Your task to perform on an android device: change notification settings in the gmail app Image 0: 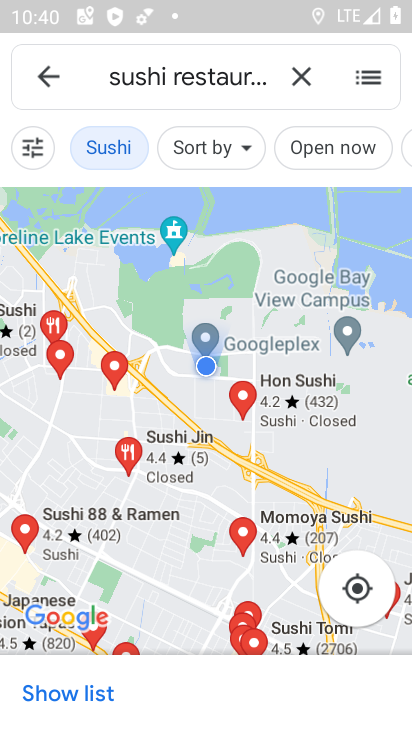
Step 0: press home button
Your task to perform on an android device: change notification settings in the gmail app Image 1: 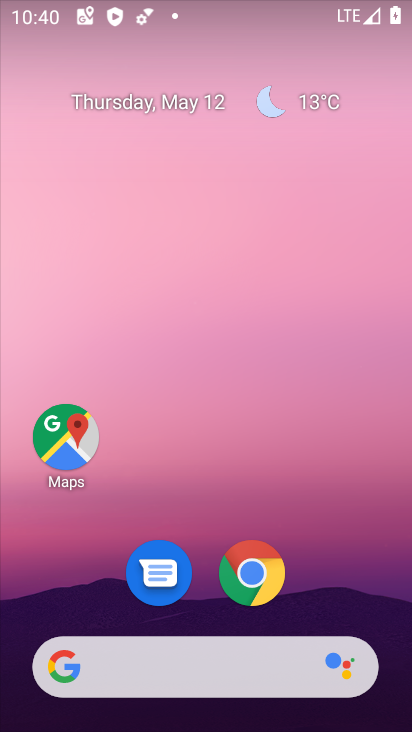
Step 1: drag from (174, 641) to (126, 26)
Your task to perform on an android device: change notification settings in the gmail app Image 2: 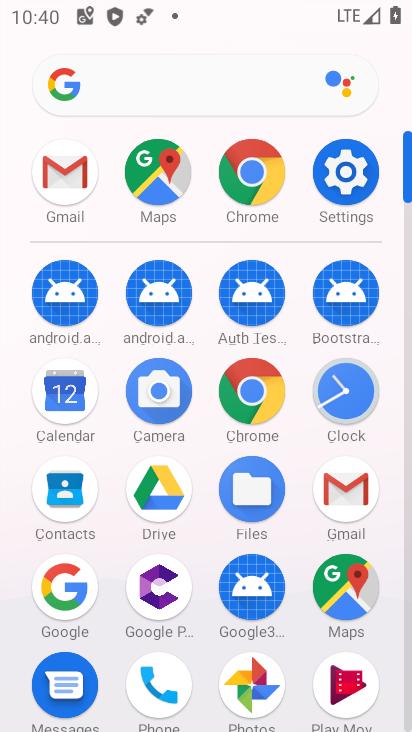
Step 2: click (351, 483)
Your task to perform on an android device: change notification settings in the gmail app Image 3: 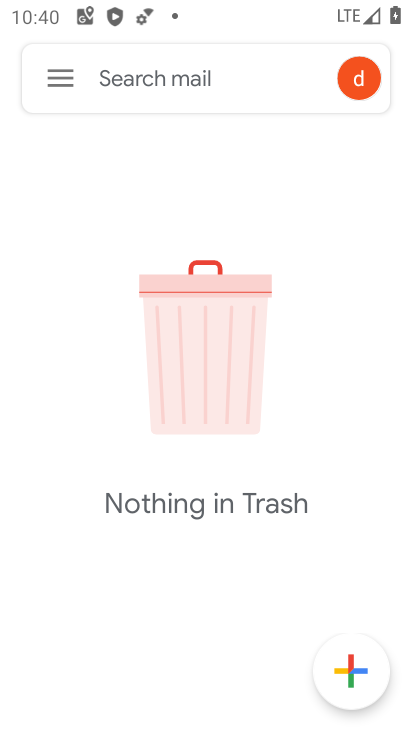
Step 3: click (53, 65)
Your task to perform on an android device: change notification settings in the gmail app Image 4: 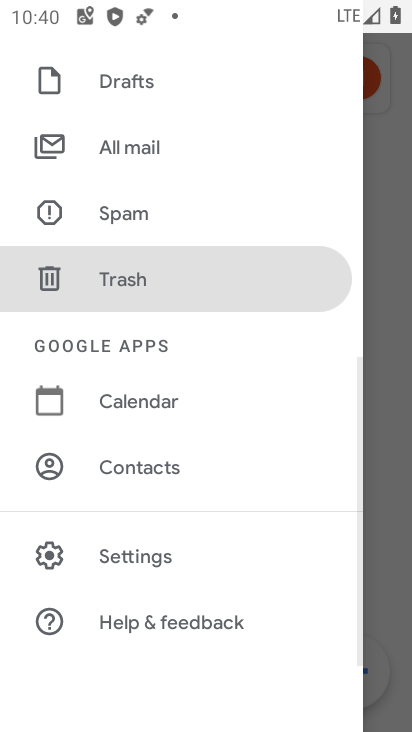
Step 4: click (136, 544)
Your task to perform on an android device: change notification settings in the gmail app Image 5: 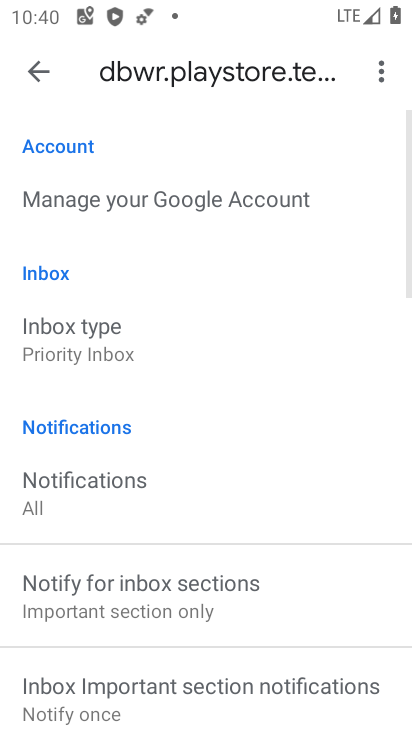
Step 5: click (29, 57)
Your task to perform on an android device: change notification settings in the gmail app Image 6: 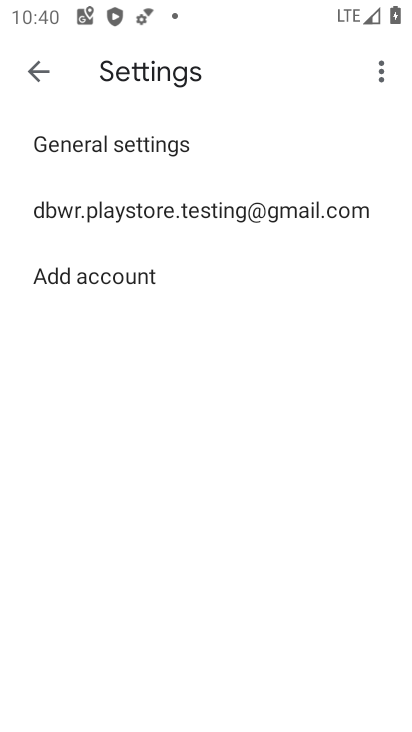
Step 6: click (67, 135)
Your task to perform on an android device: change notification settings in the gmail app Image 7: 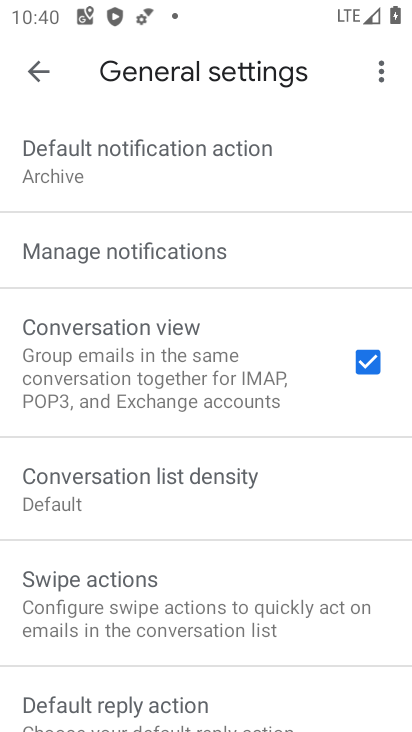
Step 7: click (120, 253)
Your task to perform on an android device: change notification settings in the gmail app Image 8: 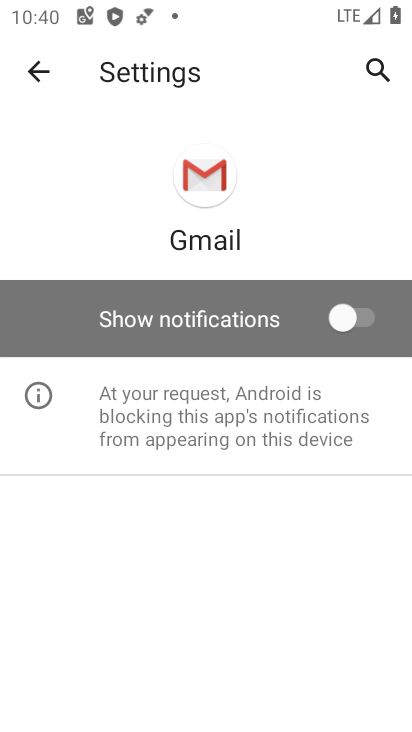
Step 8: click (354, 322)
Your task to perform on an android device: change notification settings in the gmail app Image 9: 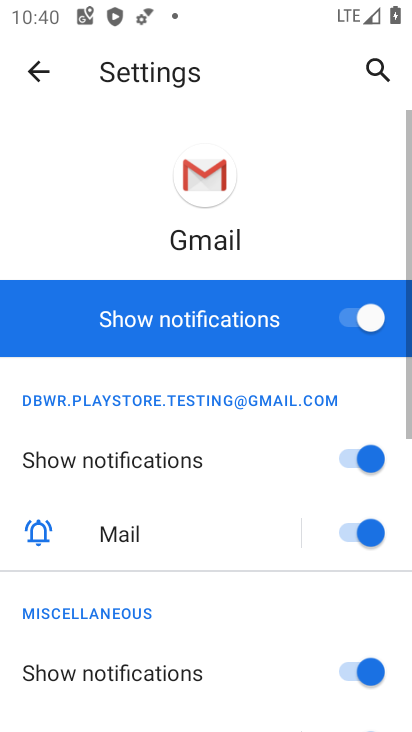
Step 9: task complete